Your task to perform on an android device: Set the phone to "Do not disturb". Image 0: 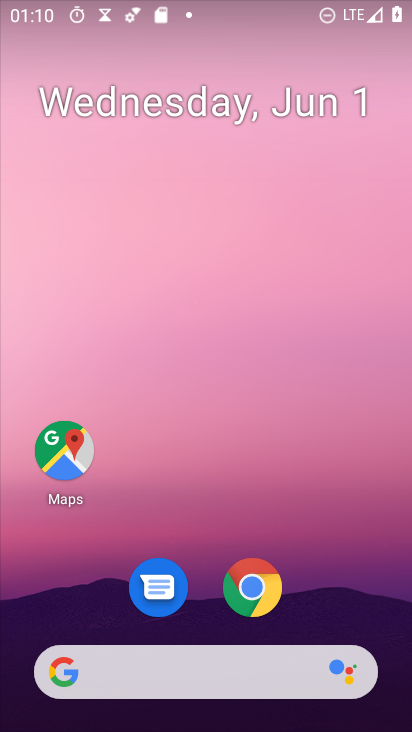
Step 0: drag from (329, 518) to (317, 1)
Your task to perform on an android device: Set the phone to "Do not disturb". Image 1: 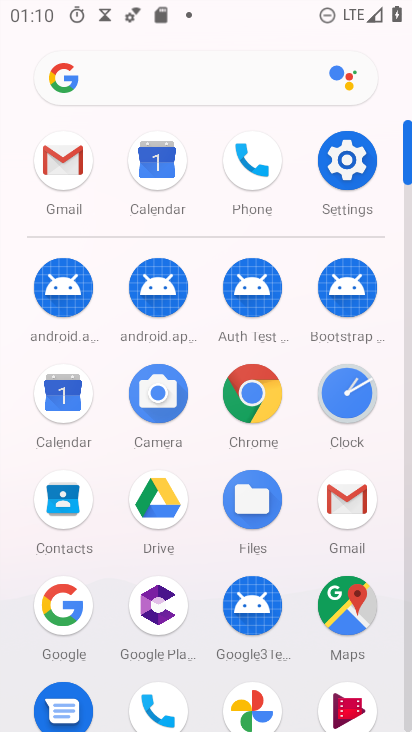
Step 1: click (334, 160)
Your task to perform on an android device: Set the phone to "Do not disturb". Image 2: 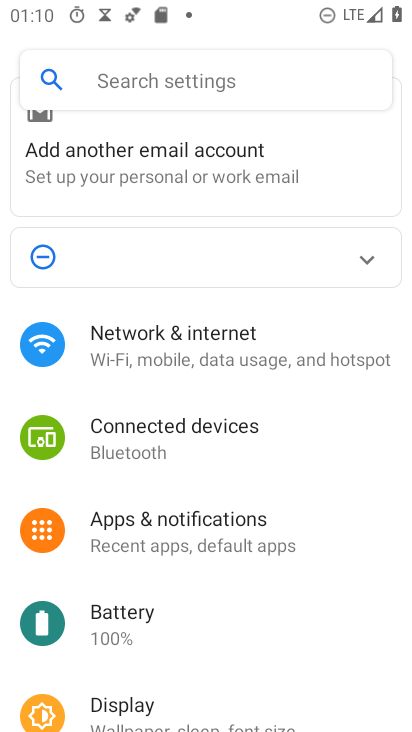
Step 2: drag from (204, 602) to (205, 221)
Your task to perform on an android device: Set the phone to "Do not disturb". Image 3: 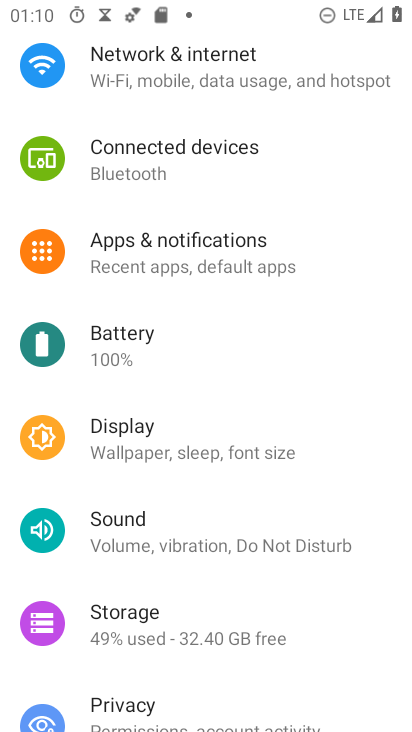
Step 3: click (237, 532)
Your task to perform on an android device: Set the phone to "Do not disturb". Image 4: 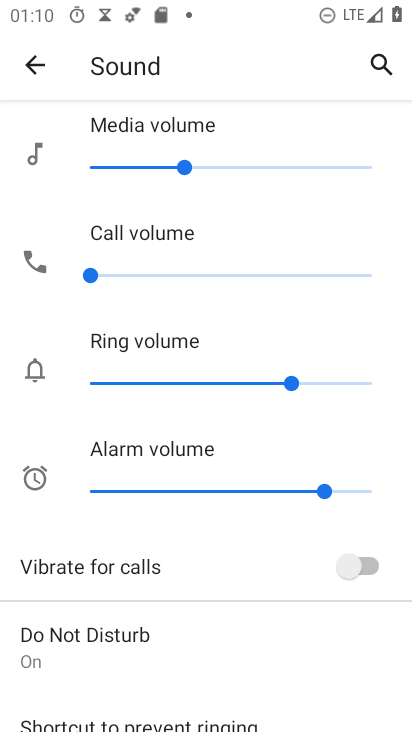
Step 4: click (173, 639)
Your task to perform on an android device: Set the phone to "Do not disturb". Image 5: 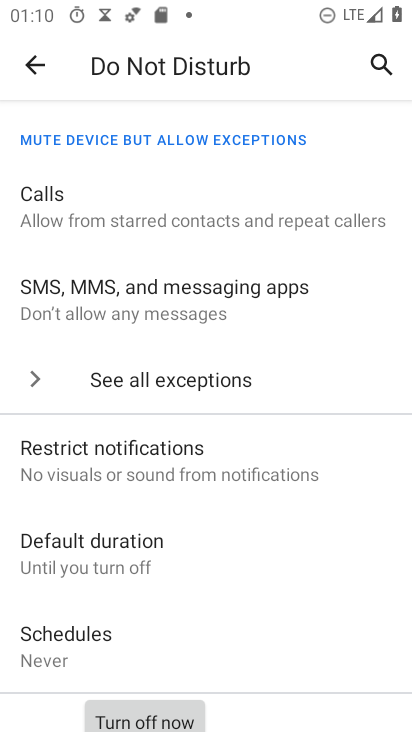
Step 5: task complete